Your task to perform on an android device: What is the news today? Image 0: 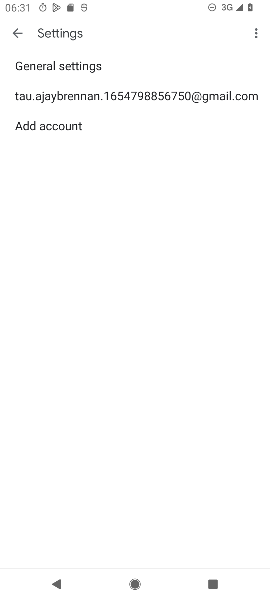
Step 0: press home button
Your task to perform on an android device: What is the news today? Image 1: 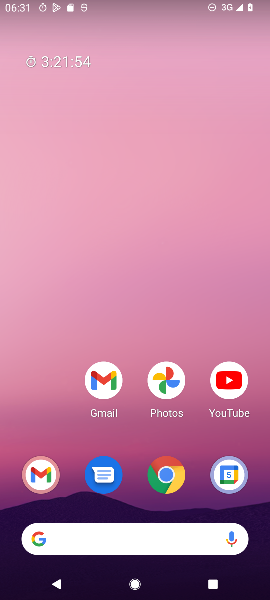
Step 1: task complete